Your task to perform on an android device: turn off priority inbox in the gmail app Image 0: 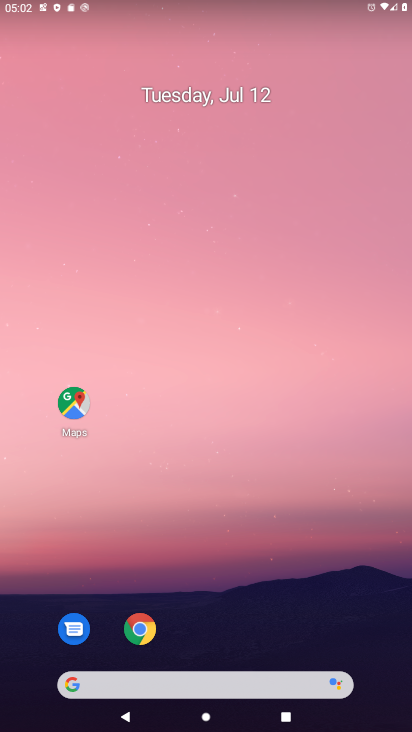
Step 0: press home button
Your task to perform on an android device: turn off priority inbox in the gmail app Image 1: 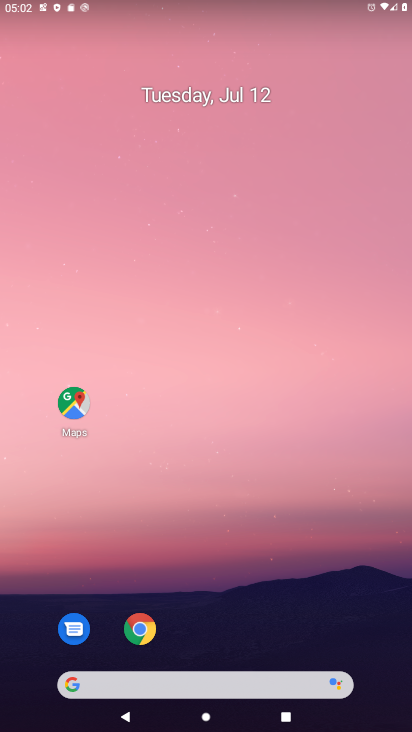
Step 1: drag from (253, 328) to (342, 0)
Your task to perform on an android device: turn off priority inbox in the gmail app Image 2: 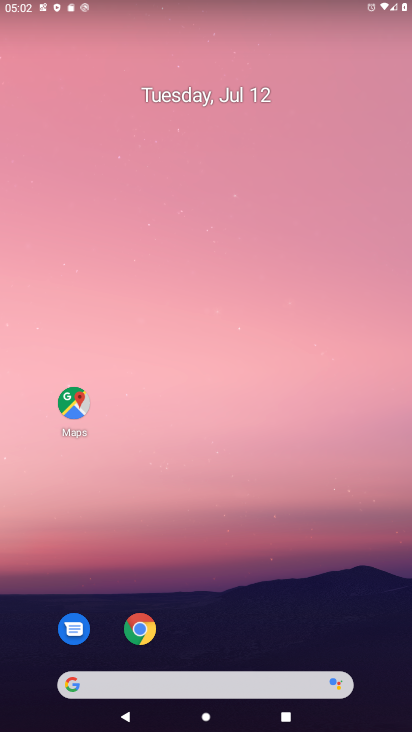
Step 2: drag from (210, 628) to (151, 3)
Your task to perform on an android device: turn off priority inbox in the gmail app Image 3: 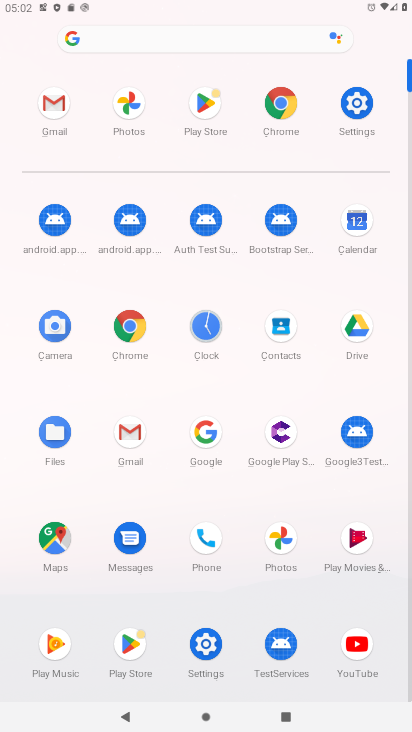
Step 3: click (56, 111)
Your task to perform on an android device: turn off priority inbox in the gmail app Image 4: 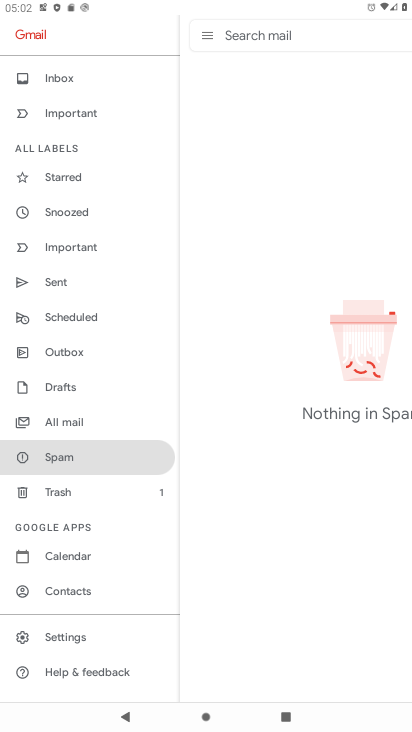
Step 4: click (55, 640)
Your task to perform on an android device: turn off priority inbox in the gmail app Image 5: 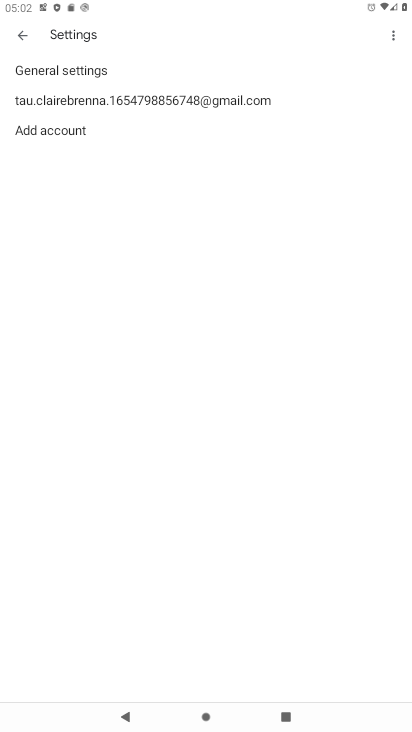
Step 5: click (59, 106)
Your task to perform on an android device: turn off priority inbox in the gmail app Image 6: 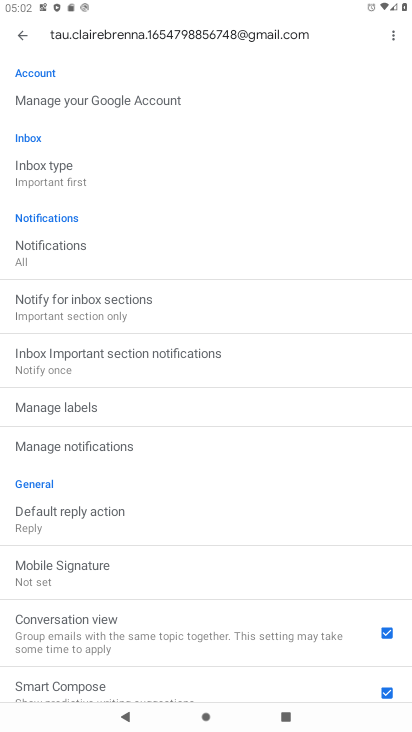
Step 6: click (37, 176)
Your task to perform on an android device: turn off priority inbox in the gmail app Image 7: 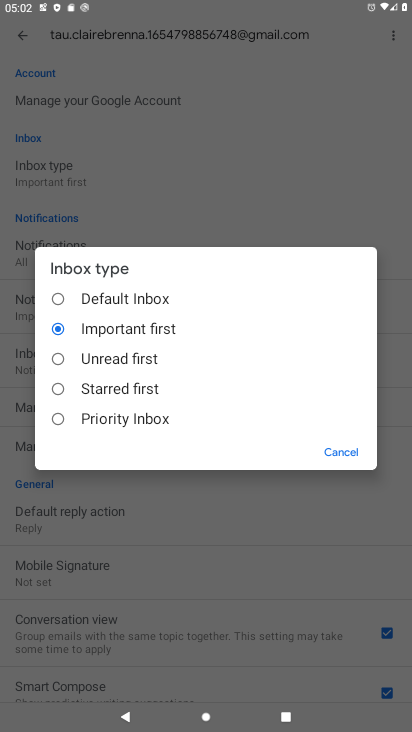
Step 7: task complete